Your task to perform on an android device: turn on translation in the chrome app Image 0: 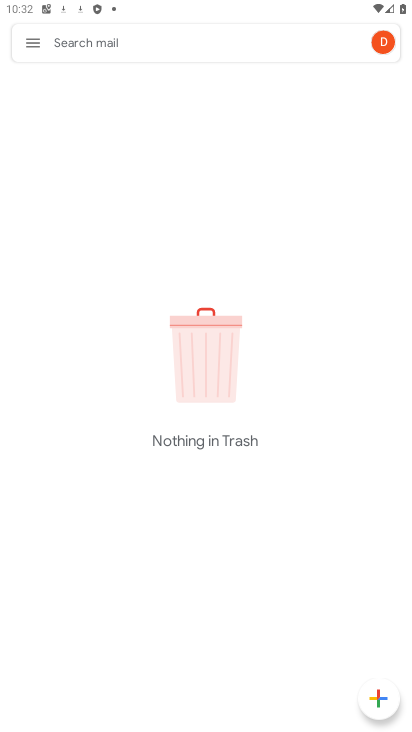
Step 0: press home button
Your task to perform on an android device: turn on translation in the chrome app Image 1: 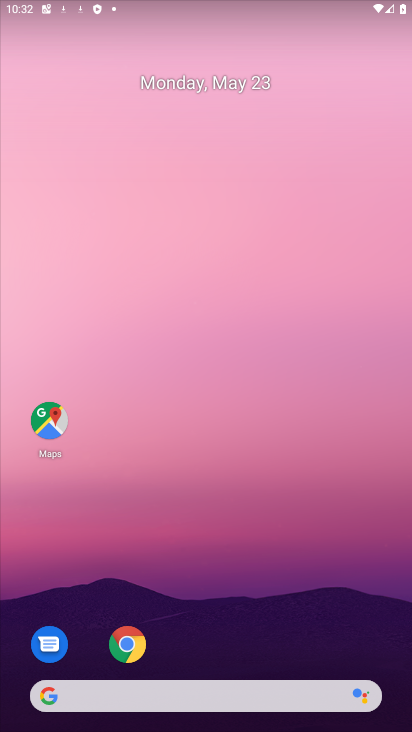
Step 1: drag from (222, 707) to (243, 123)
Your task to perform on an android device: turn on translation in the chrome app Image 2: 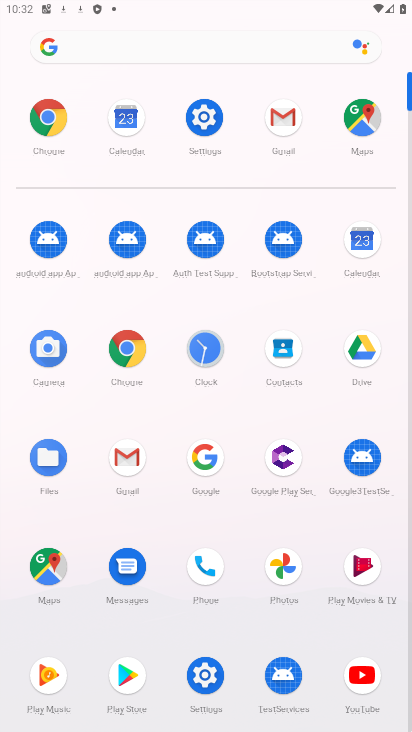
Step 2: click (51, 125)
Your task to perform on an android device: turn on translation in the chrome app Image 3: 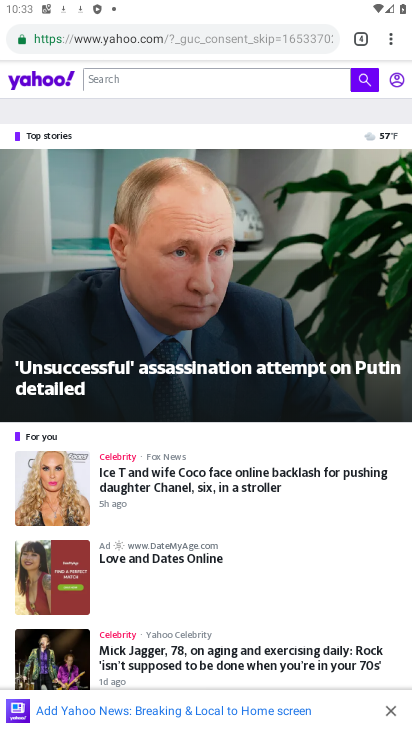
Step 3: click (381, 44)
Your task to perform on an android device: turn on translation in the chrome app Image 4: 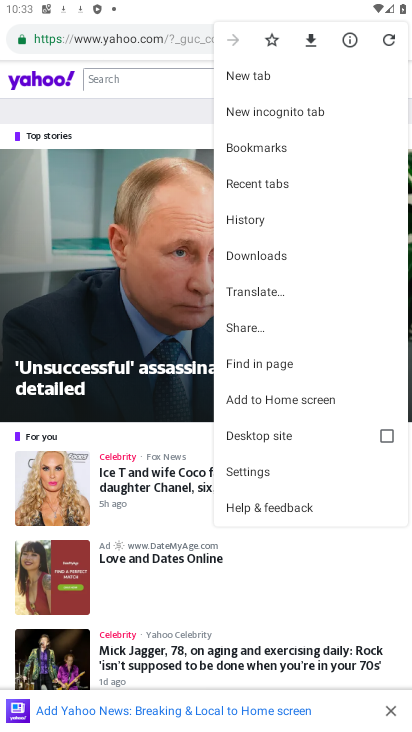
Step 4: click (267, 476)
Your task to perform on an android device: turn on translation in the chrome app Image 5: 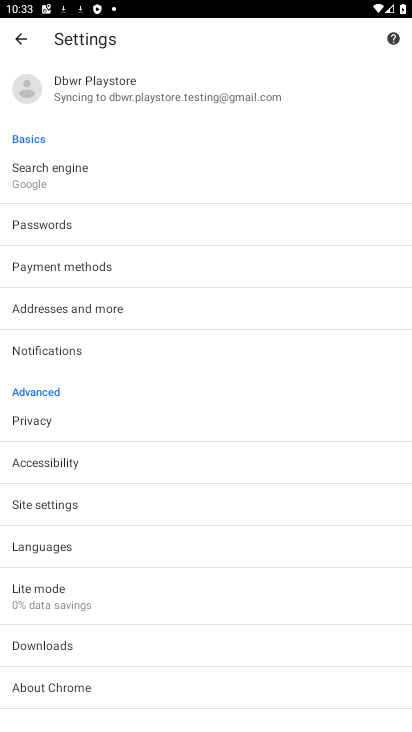
Step 5: click (45, 545)
Your task to perform on an android device: turn on translation in the chrome app Image 6: 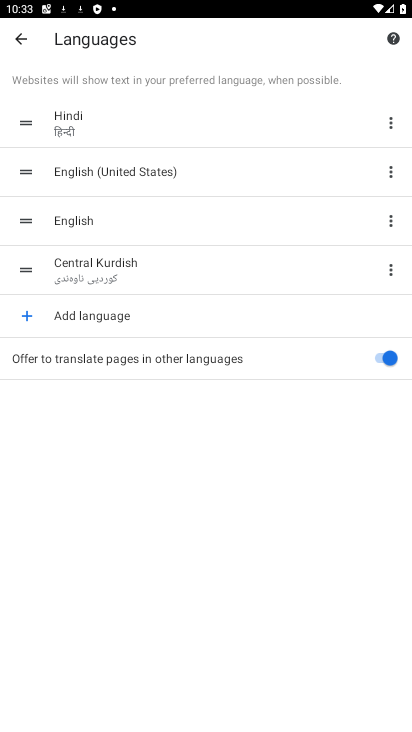
Step 6: task complete